Your task to perform on an android device: Where can I buy a nice beach hat? Image 0: 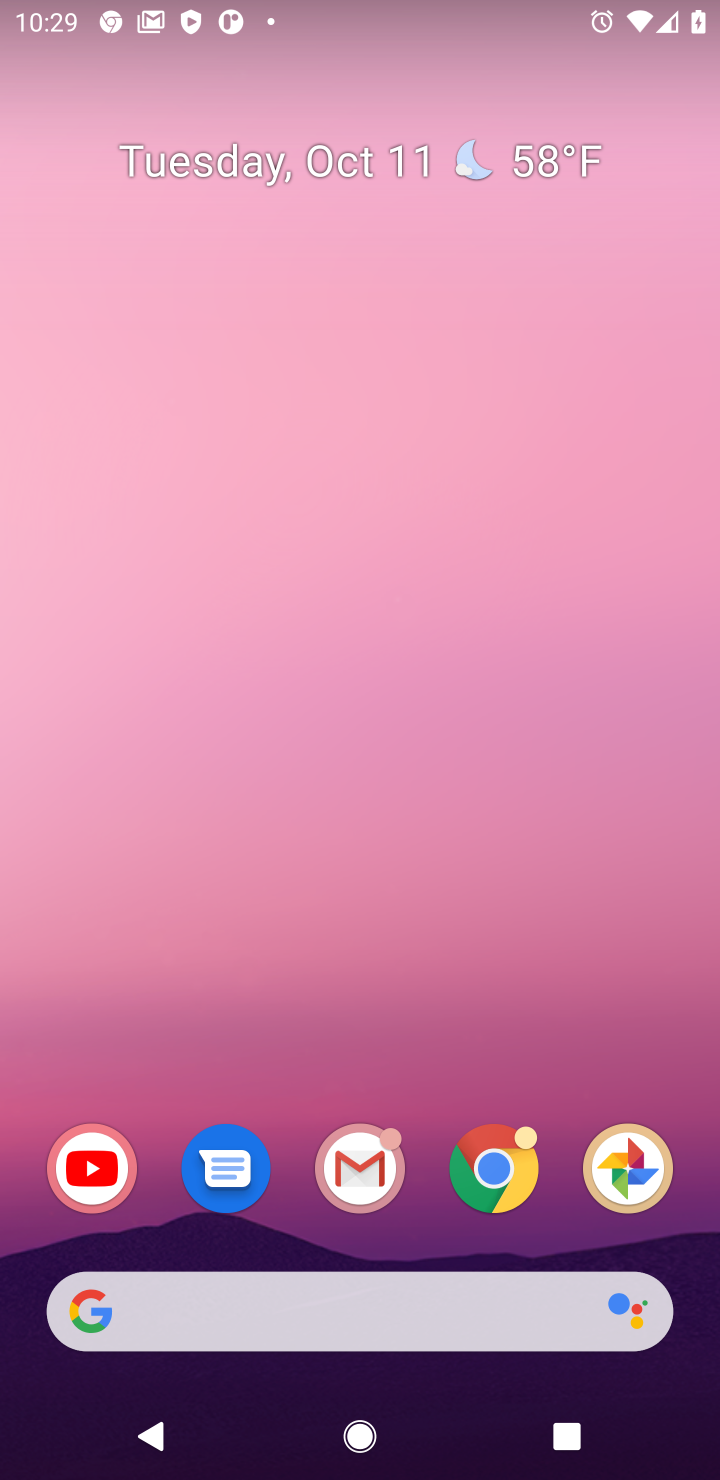
Step 0: click (493, 1178)
Your task to perform on an android device: Where can I buy a nice beach hat? Image 1: 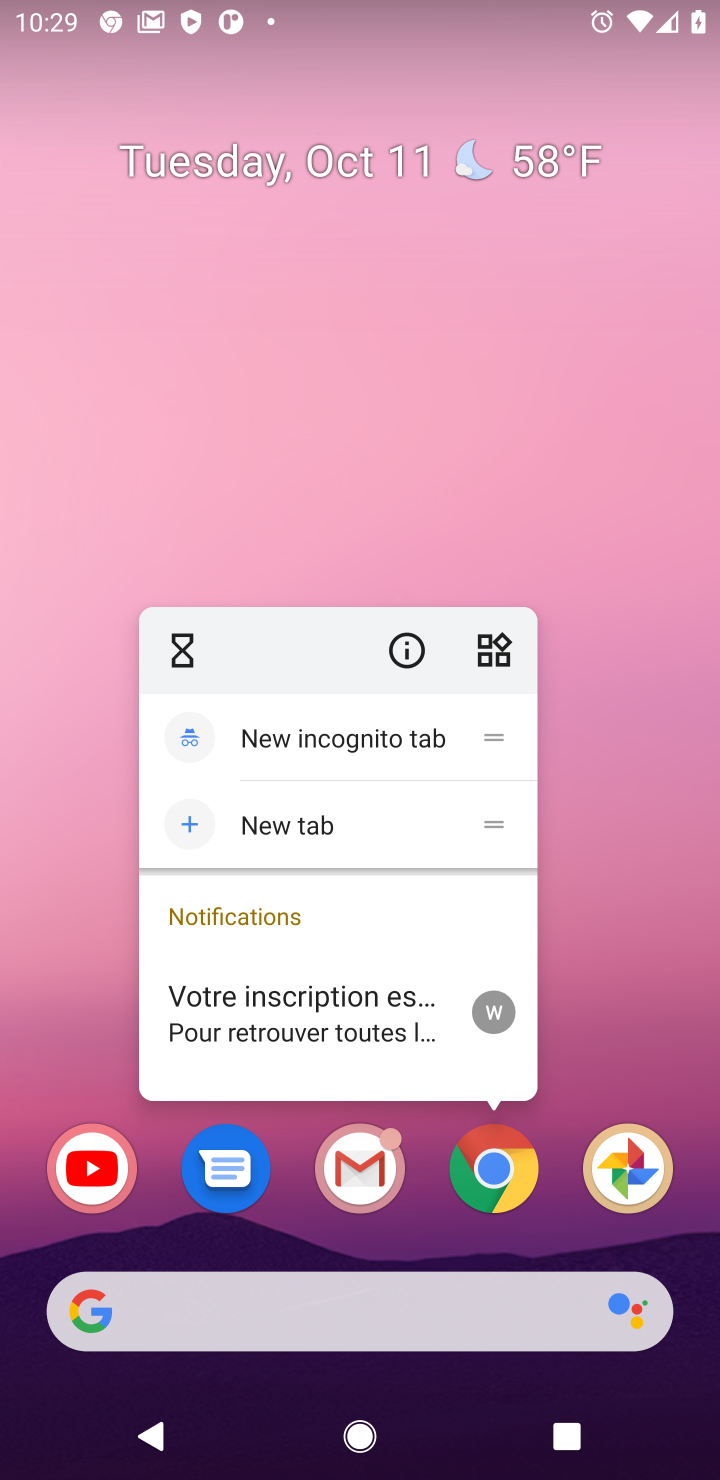
Step 1: press home button
Your task to perform on an android device: Where can I buy a nice beach hat? Image 2: 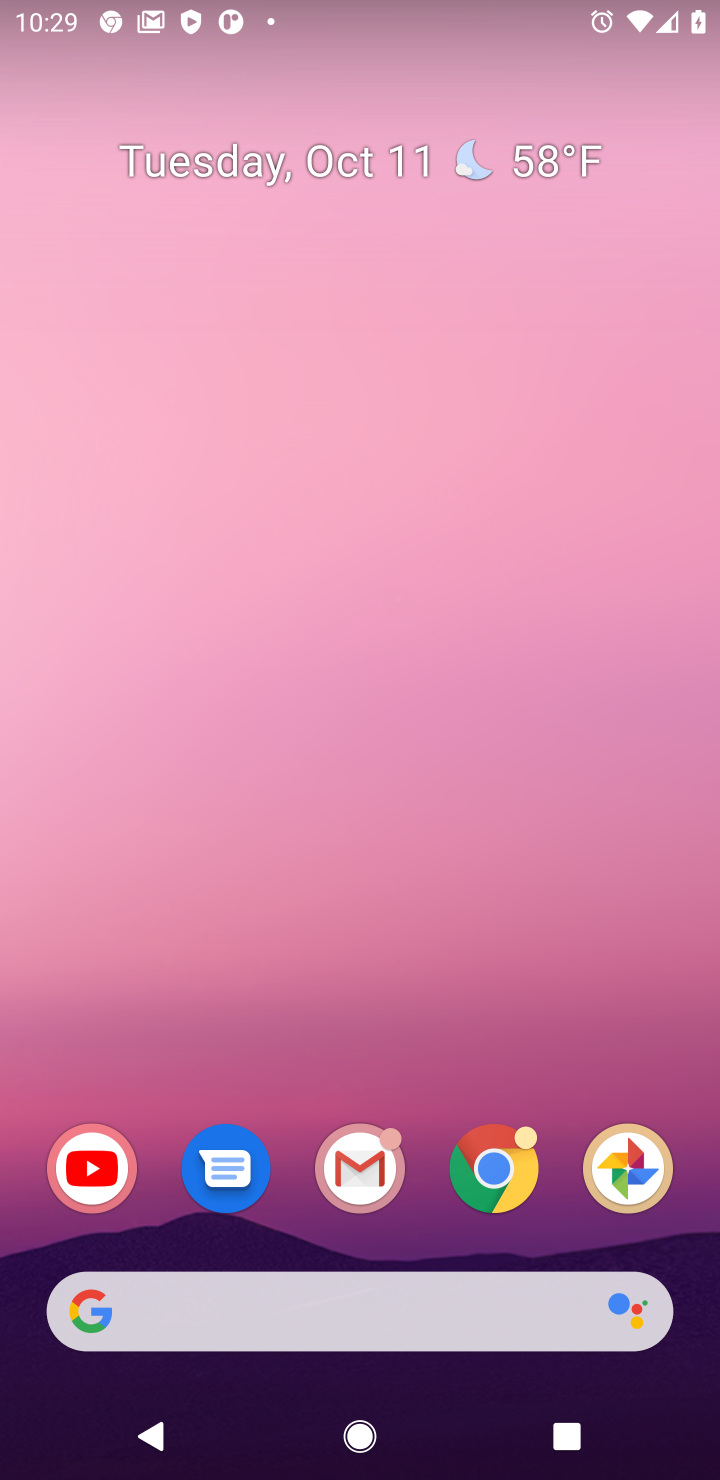
Step 2: click (494, 1156)
Your task to perform on an android device: Where can I buy a nice beach hat? Image 3: 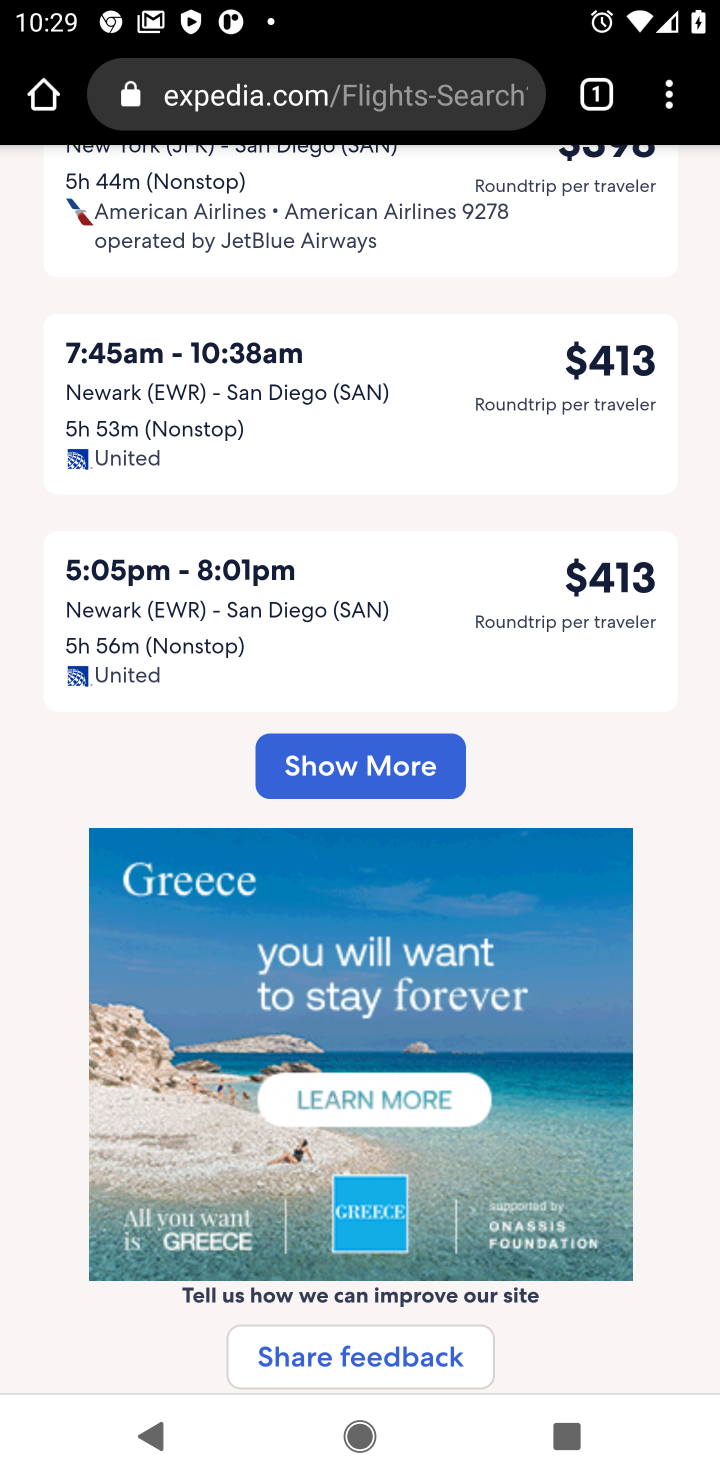
Step 3: click (318, 87)
Your task to perform on an android device: Where can I buy a nice beach hat? Image 4: 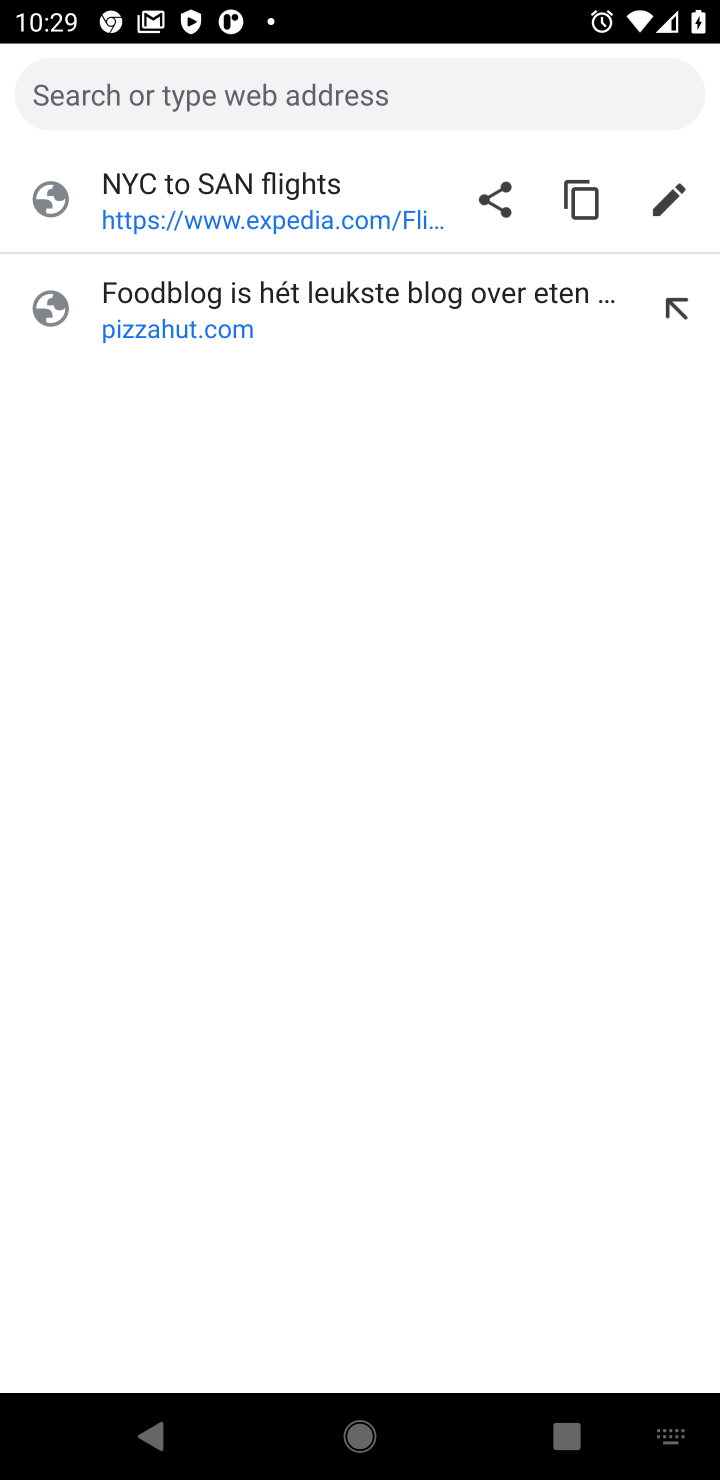
Step 4: type "where can i buy a nice beach hat"
Your task to perform on an android device: Where can I buy a nice beach hat? Image 5: 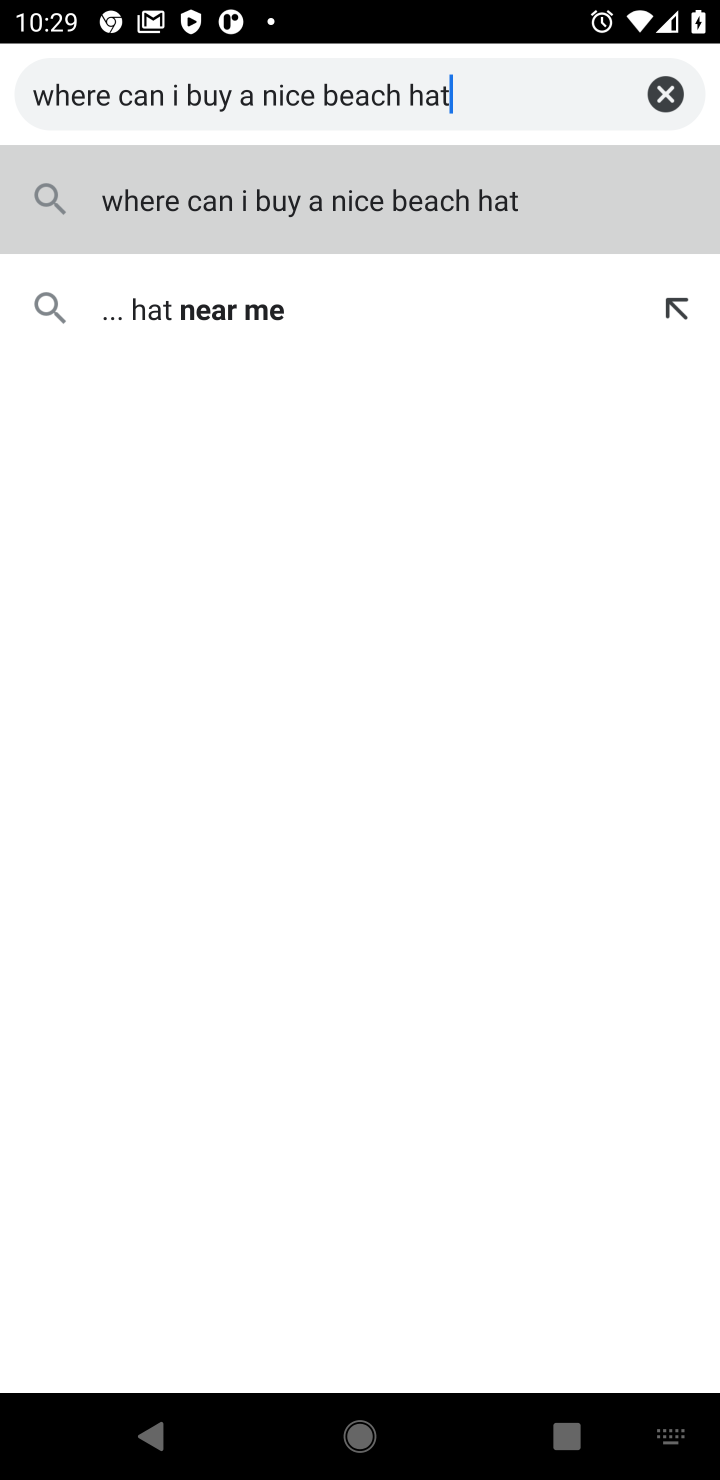
Step 5: click (409, 196)
Your task to perform on an android device: Where can I buy a nice beach hat? Image 6: 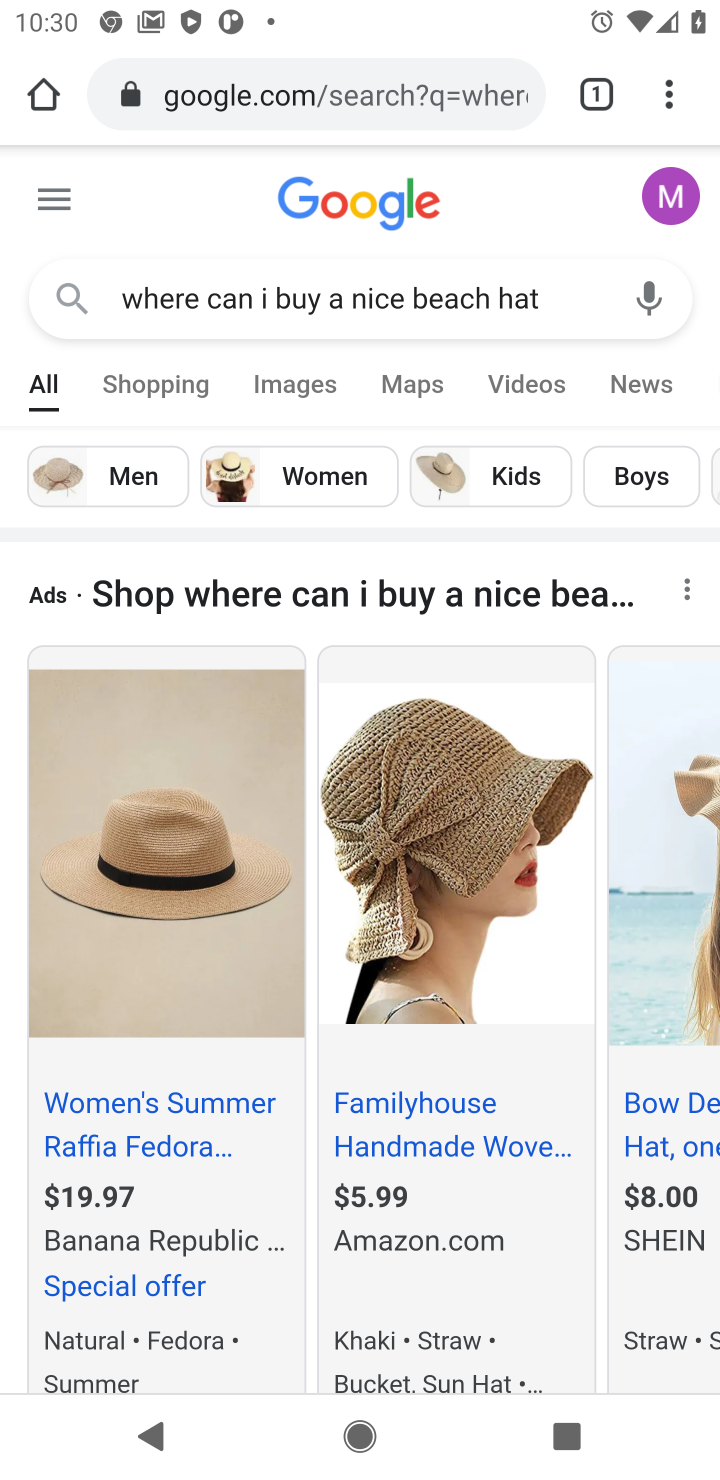
Step 6: drag from (419, 785) to (440, 578)
Your task to perform on an android device: Where can I buy a nice beach hat? Image 7: 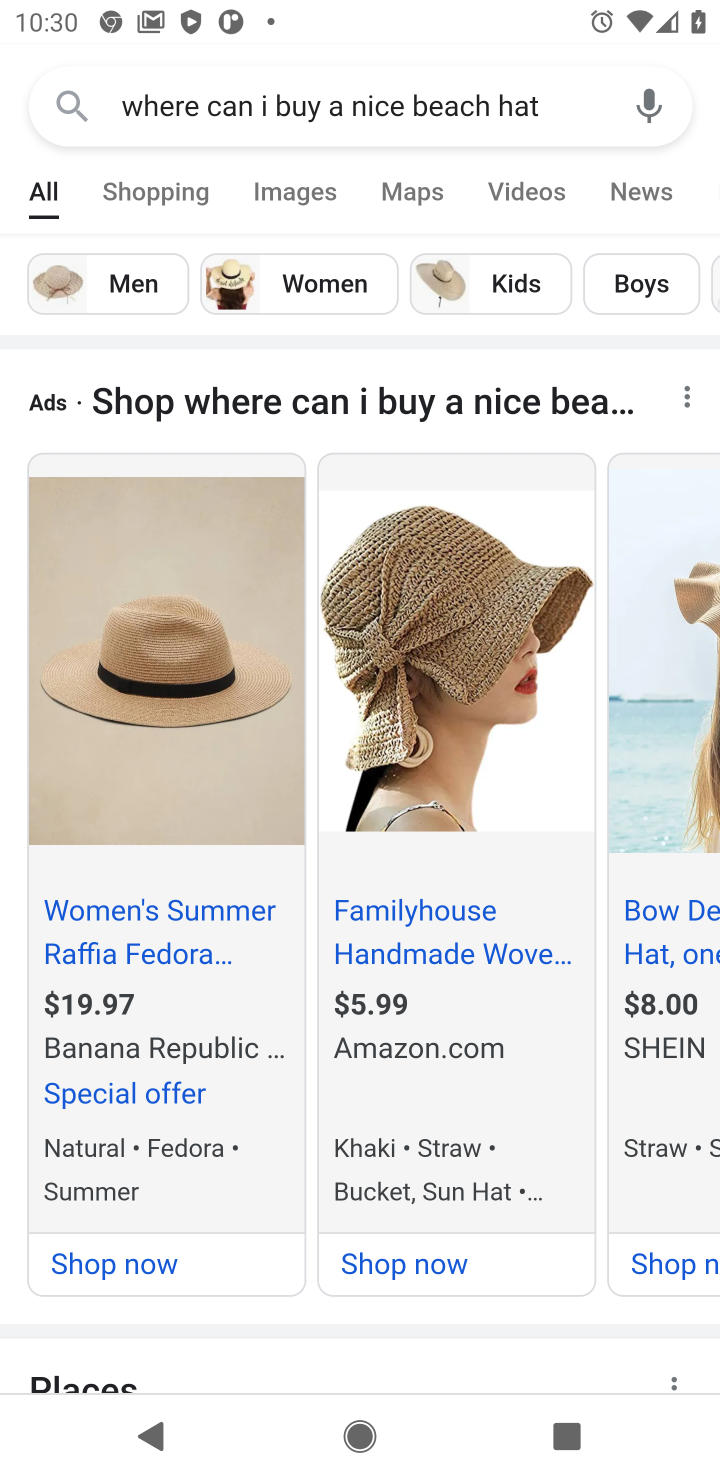
Step 7: drag from (270, 1117) to (336, 623)
Your task to perform on an android device: Where can I buy a nice beach hat? Image 8: 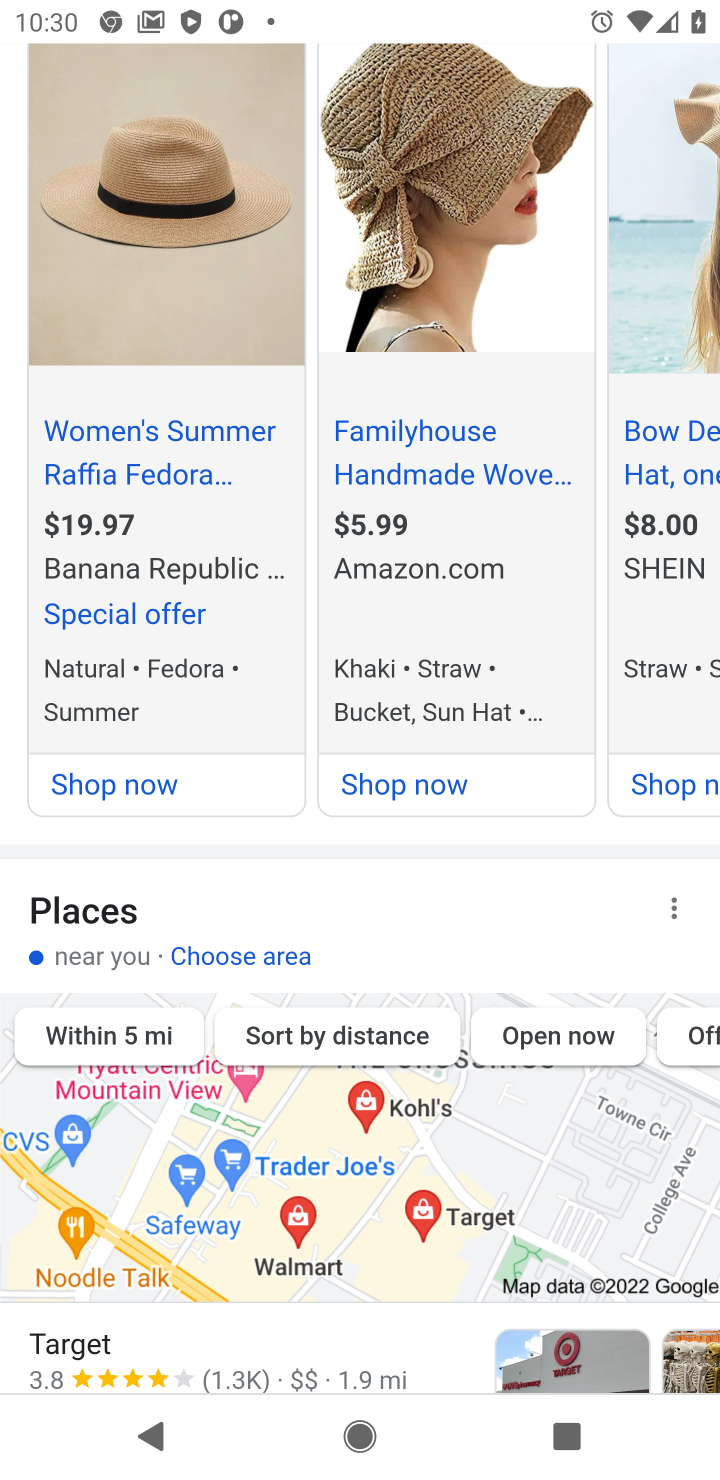
Step 8: drag from (392, 820) to (403, 696)
Your task to perform on an android device: Where can I buy a nice beach hat? Image 9: 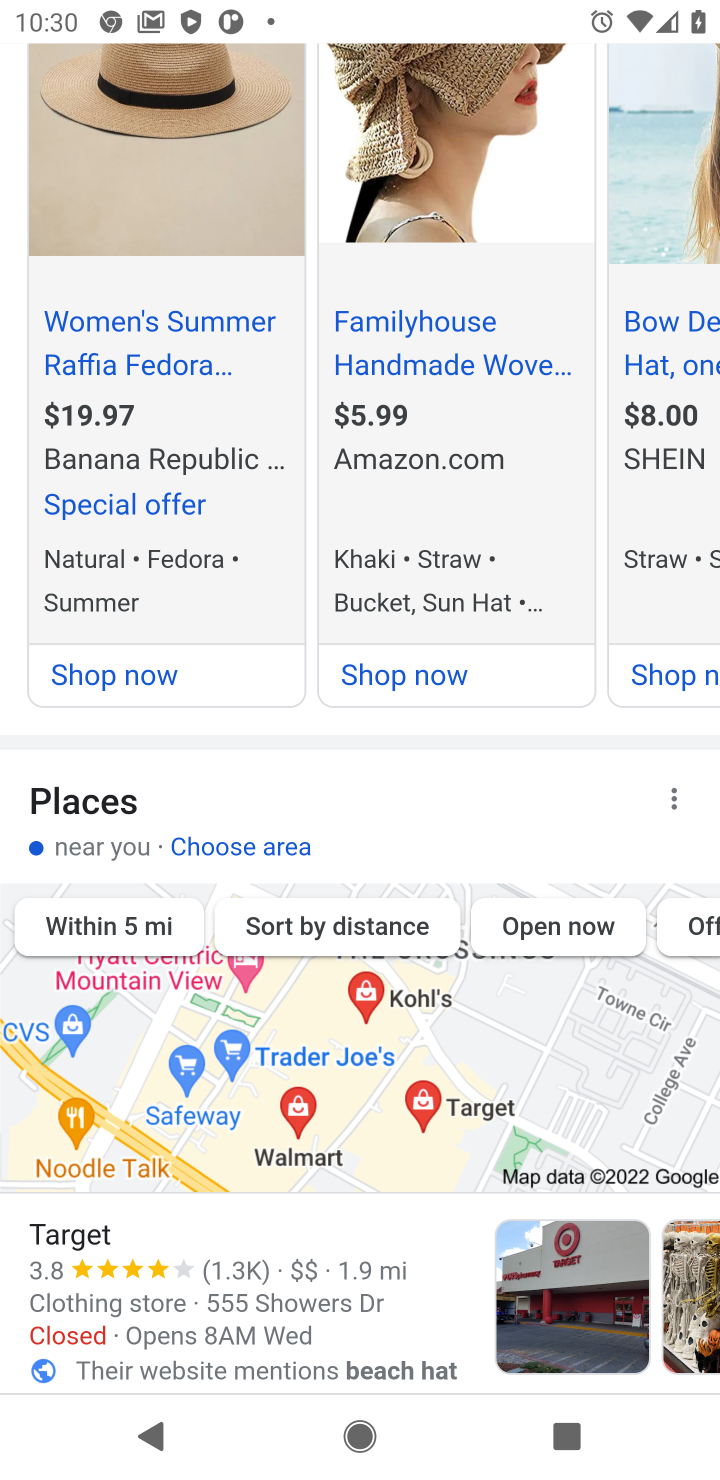
Step 9: drag from (370, 1249) to (358, 726)
Your task to perform on an android device: Where can I buy a nice beach hat? Image 10: 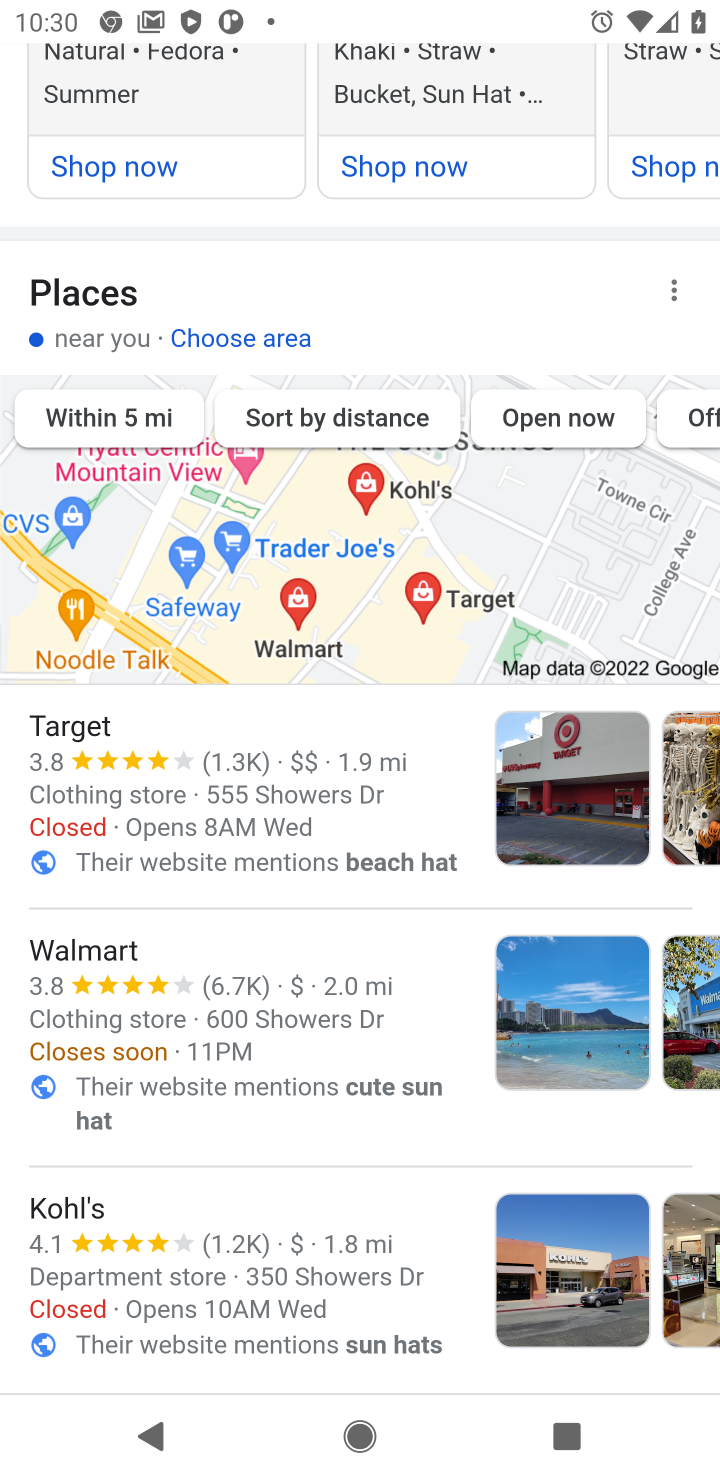
Step 10: drag from (296, 1151) to (301, 849)
Your task to perform on an android device: Where can I buy a nice beach hat? Image 11: 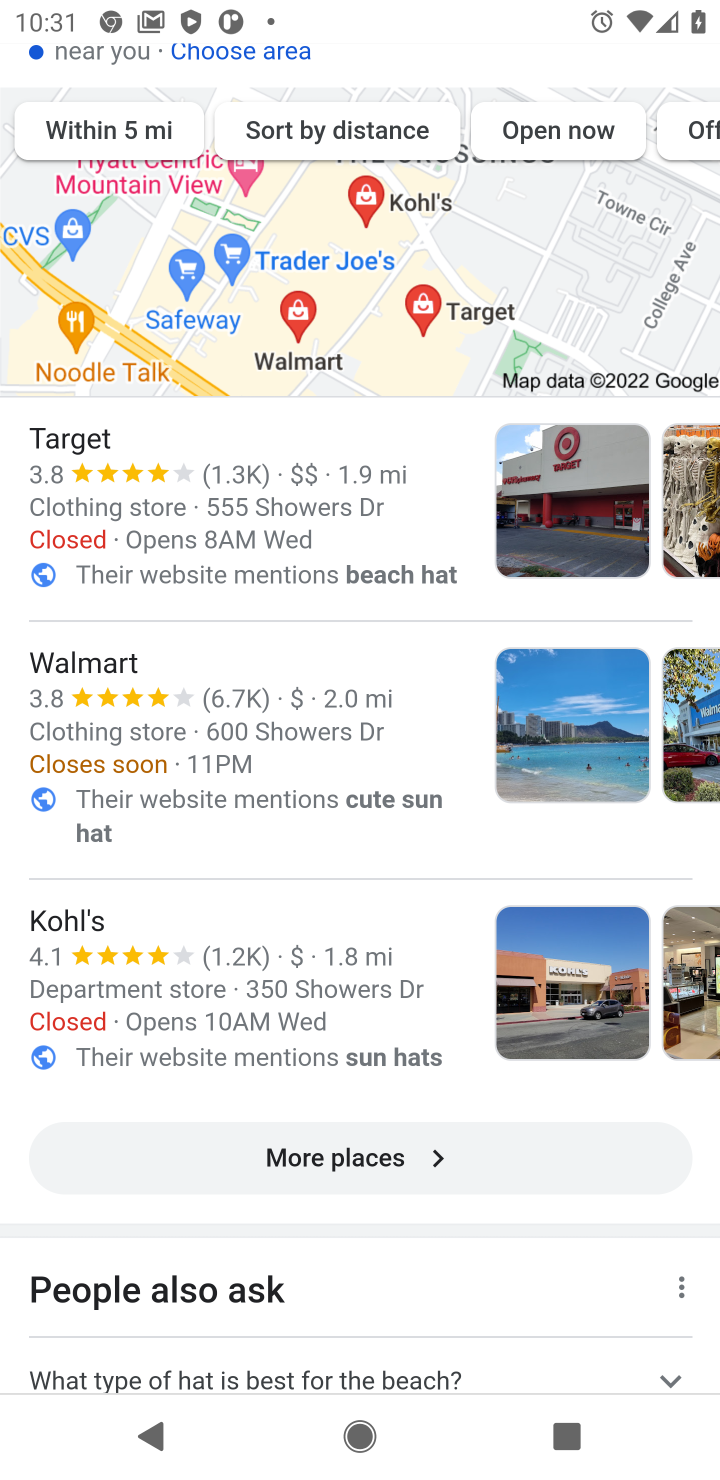
Step 11: drag from (203, 836) to (299, 409)
Your task to perform on an android device: Where can I buy a nice beach hat? Image 12: 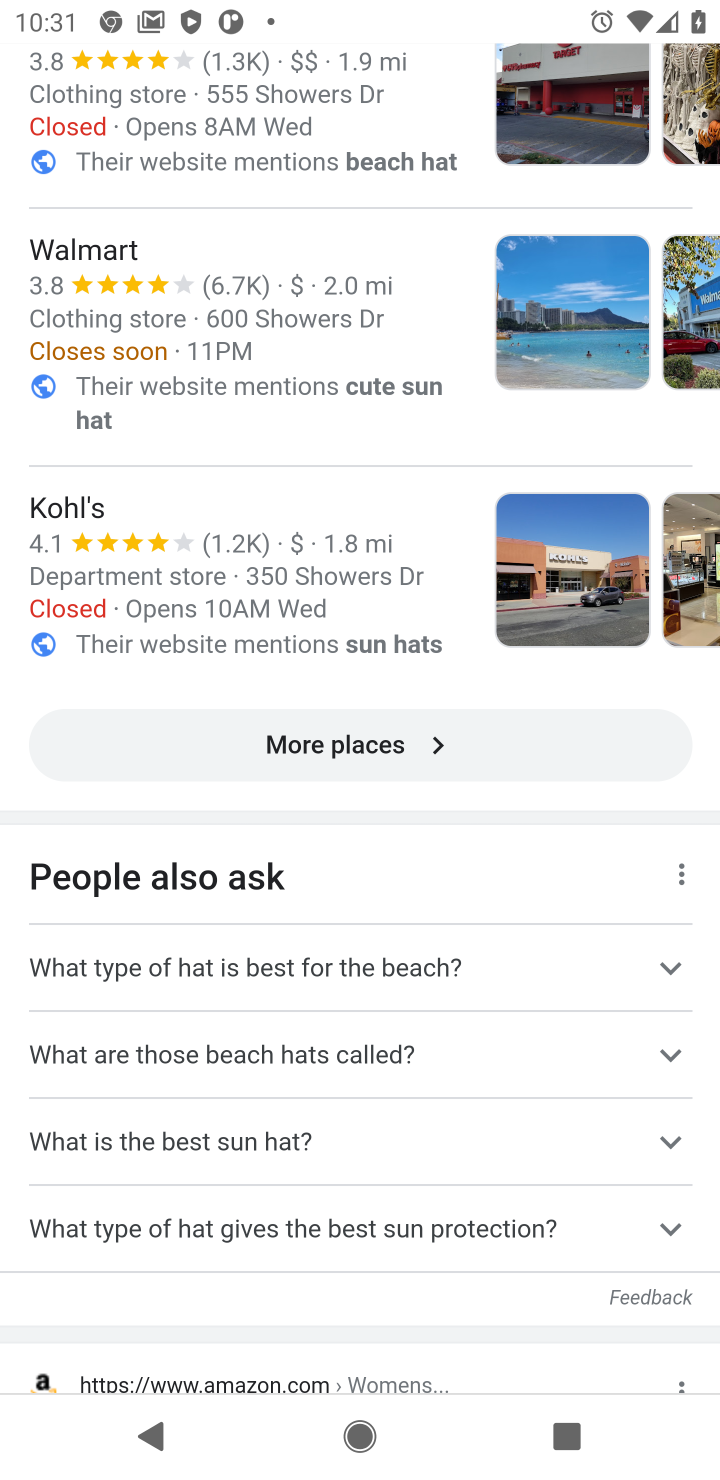
Step 12: drag from (354, 1194) to (485, 542)
Your task to perform on an android device: Where can I buy a nice beach hat? Image 13: 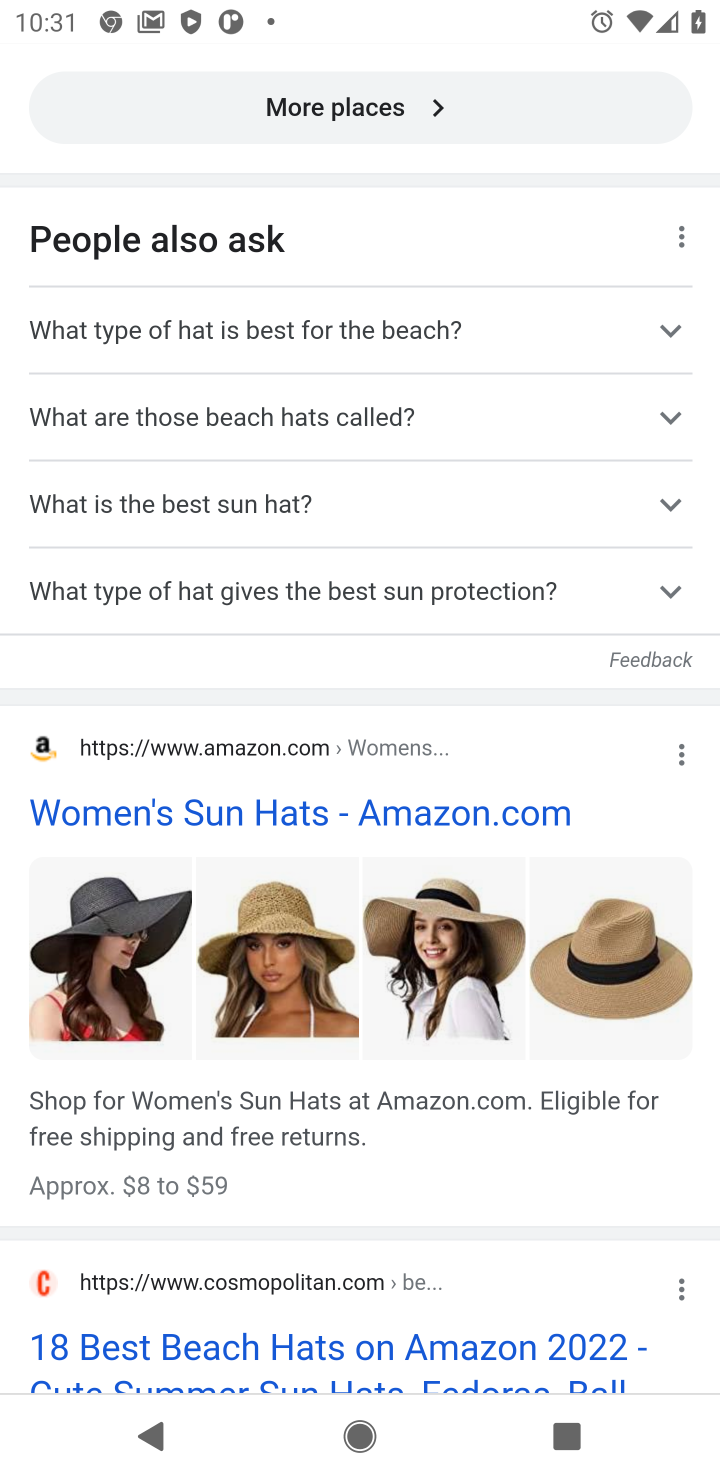
Step 13: click (120, 993)
Your task to perform on an android device: Where can I buy a nice beach hat? Image 14: 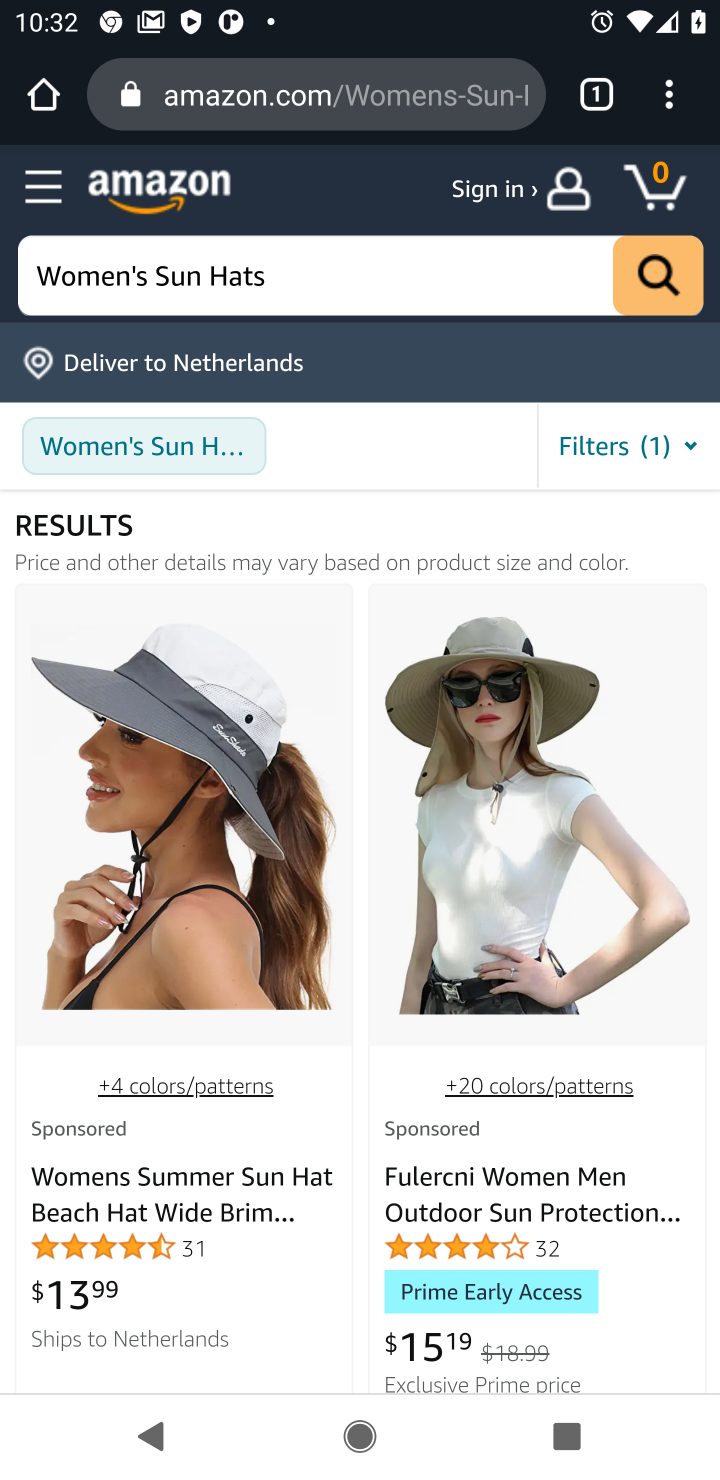
Step 14: task complete